Your task to perform on an android device: Go to Google maps Image 0: 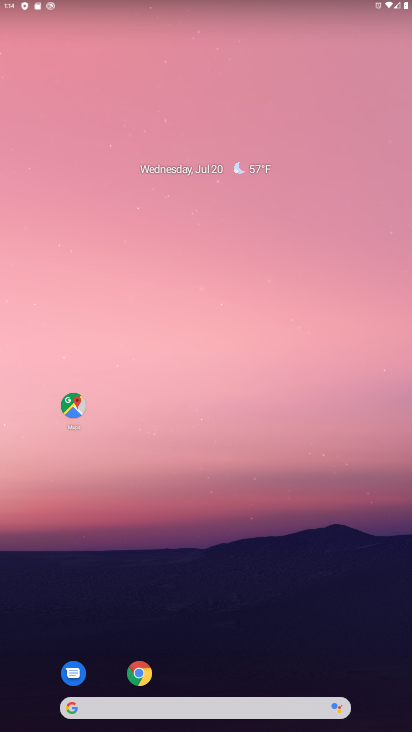
Step 0: click (58, 403)
Your task to perform on an android device: Go to Google maps Image 1: 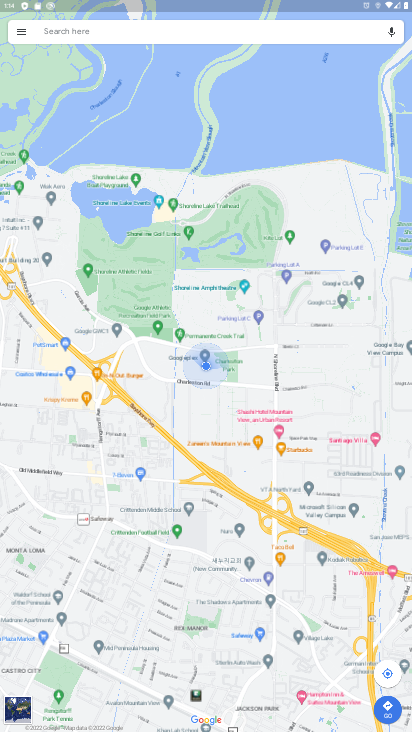
Step 1: task complete